Your task to perform on an android device: check out phone information Image 0: 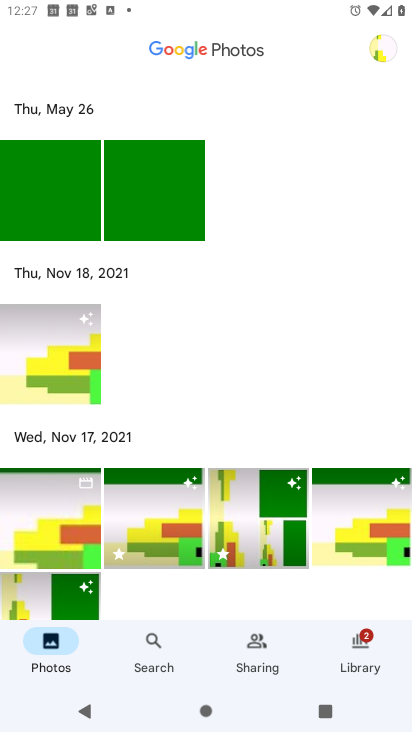
Step 0: press home button
Your task to perform on an android device: check out phone information Image 1: 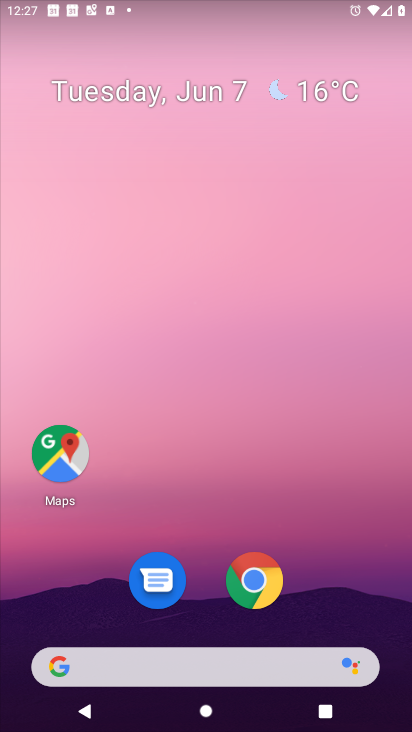
Step 1: drag from (374, 626) to (358, 0)
Your task to perform on an android device: check out phone information Image 2: 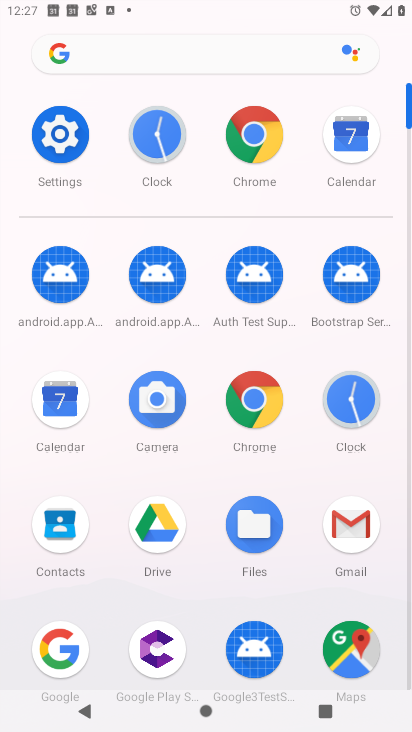
Step 2: click (64, 140)
Your task to perform on an android device: check out phone information Image 3: 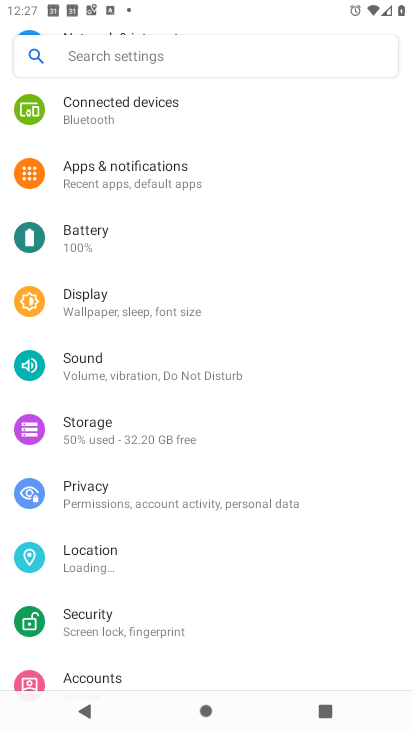
Step 3: task complete